Your task to perform on an android device: set the stopwatch Image 0: 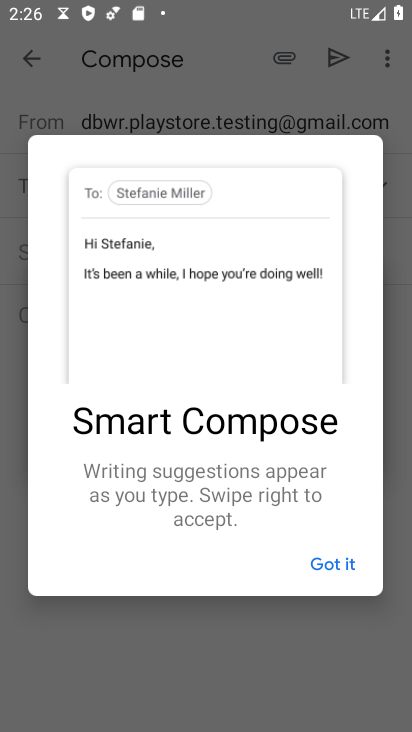
Step 0: press home button
Your task to perform on an android device: set the stopwatch Image 1: 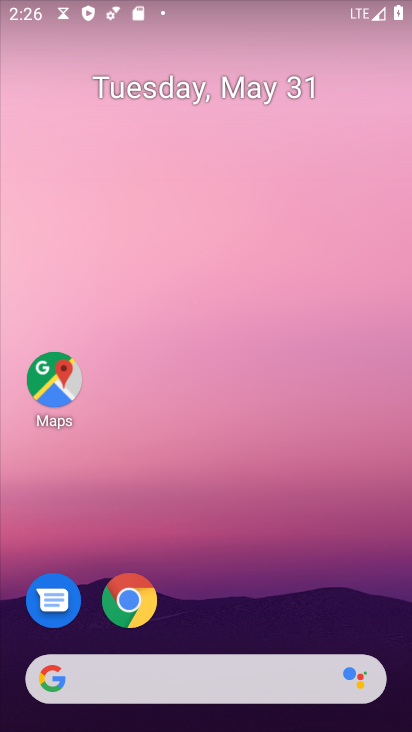
Step 1: drag from (214, 619) to (251, 93)
Your task to perform on an android device: set the stopwatch Image 2: 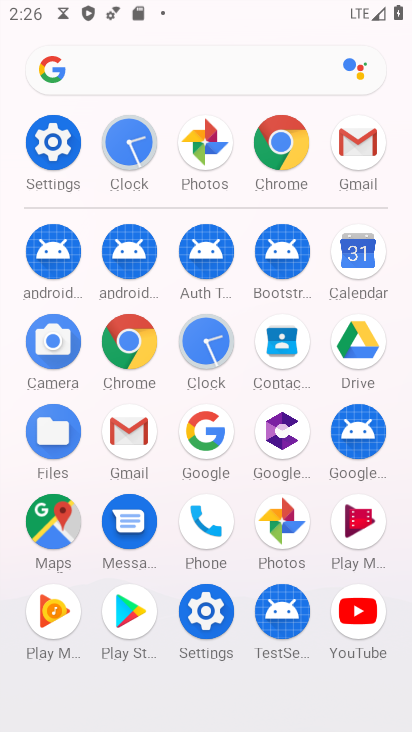
Step 2: click (128, 139)
Your task to perform on an android device: set the stopwatch Image 3: 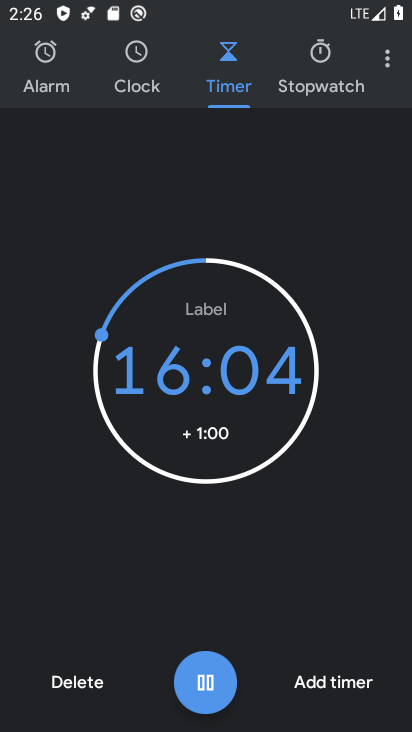
Step 3: click (314, 44)
Your task to perform on an android device: set the stopwatch Image 4: 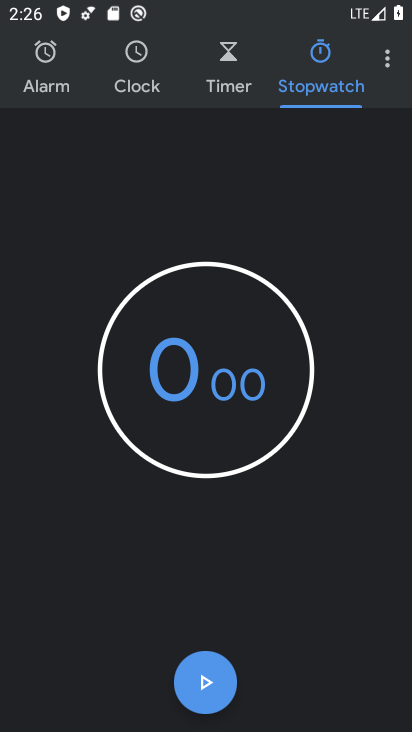
Step 4: click (202, 672)
Your task to perform on an android device: set the stopwatch Image 5: 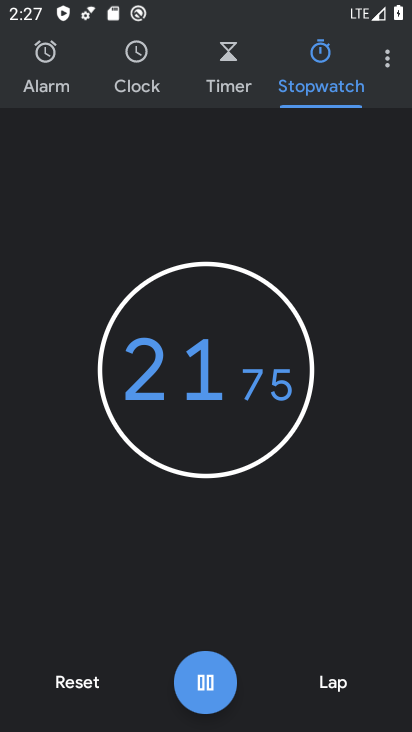
Step 5: task complete